Your task to perform on an android device: Go to calendar. Show me events next week Image 0: 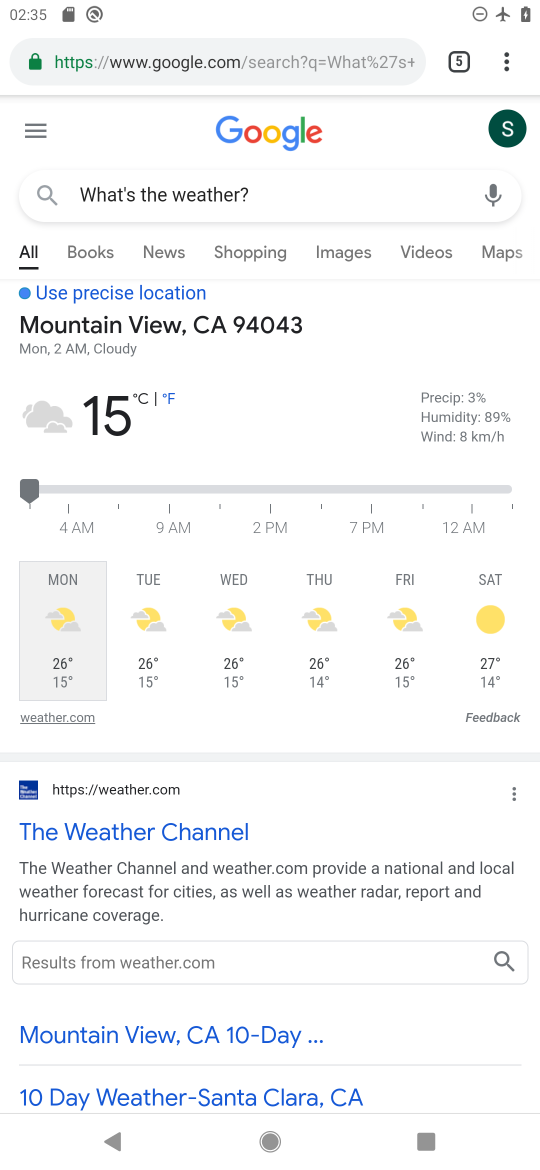
Step 0: press home button
Your task to perform on an android device: Go to calendar. Show me events next week Image 1: 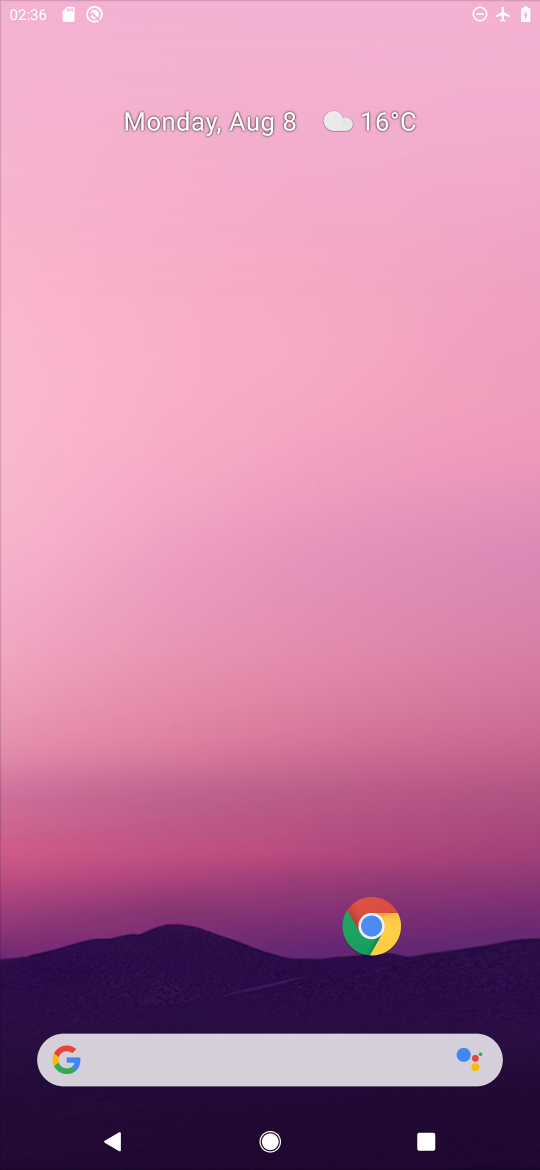
Step 1: drag from (277, 1096) to (365, 386)
Your task to perform on an android device: Go to calendar. Show me events next week Image 2: 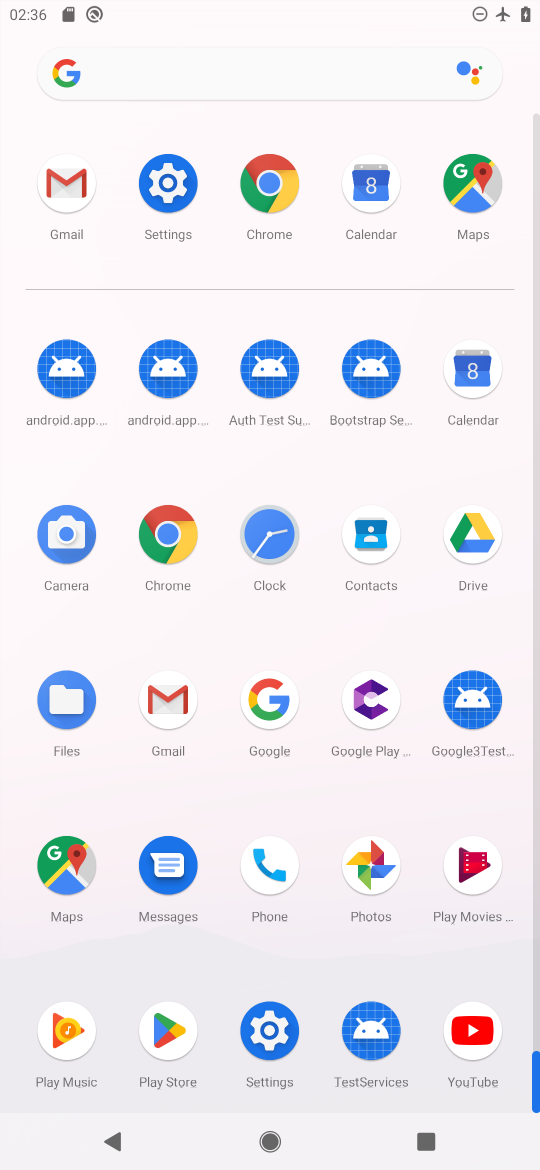
Step 2: click (378, 175)
Your task to perform on an android device: Go to calendar. Show me events next week Image 3: 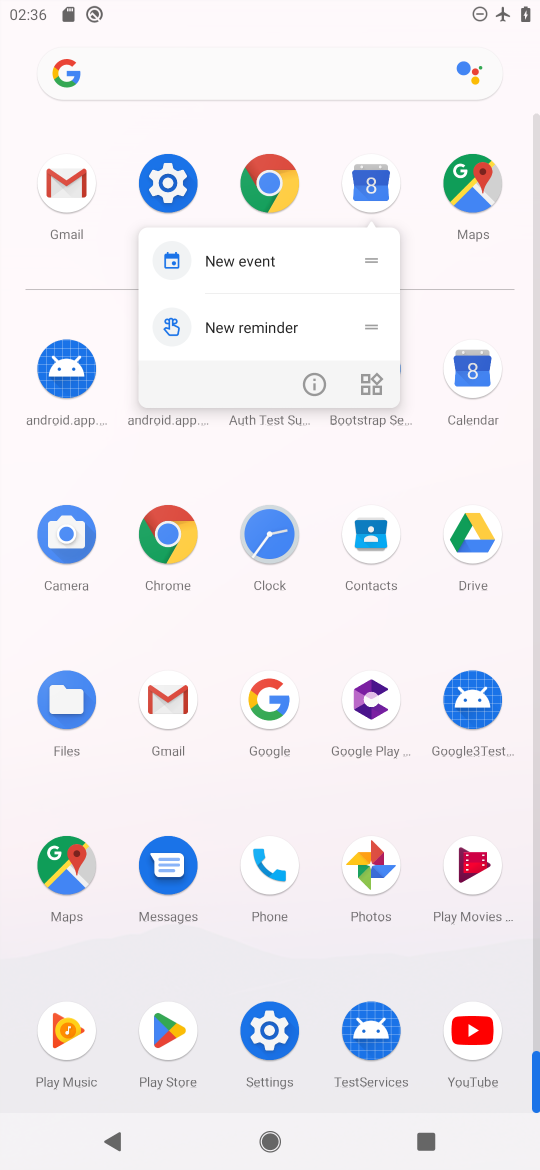
Step 3: click (376, 178)
Your task to perform on an android device: Go to calendar. Show me events next week Image 4: 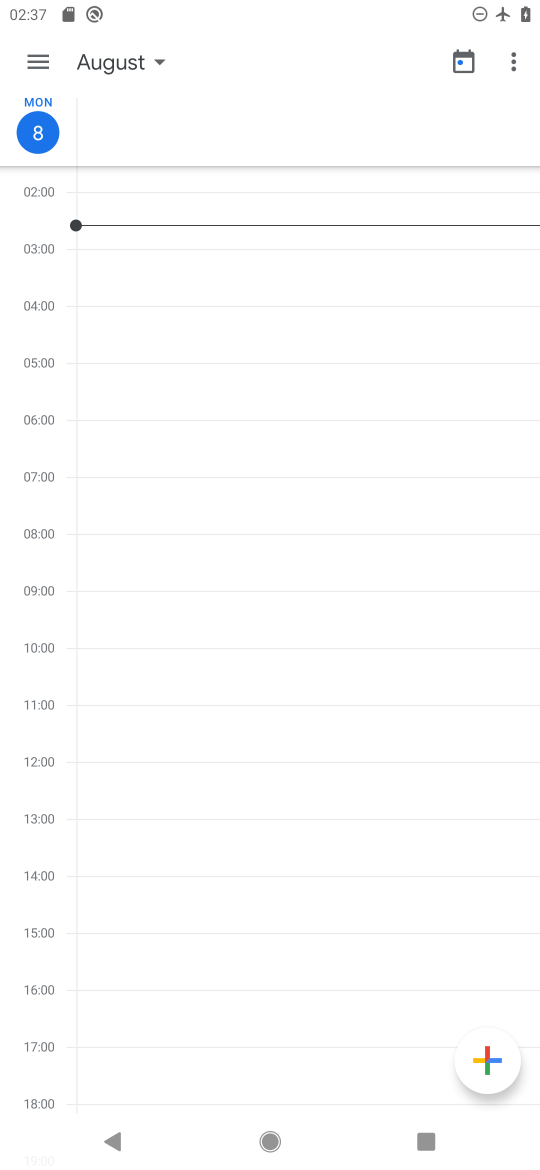
Step 4: click (56, 66)
Your task to perform on an android device: Go to calendar. Show me events next week Image 5: 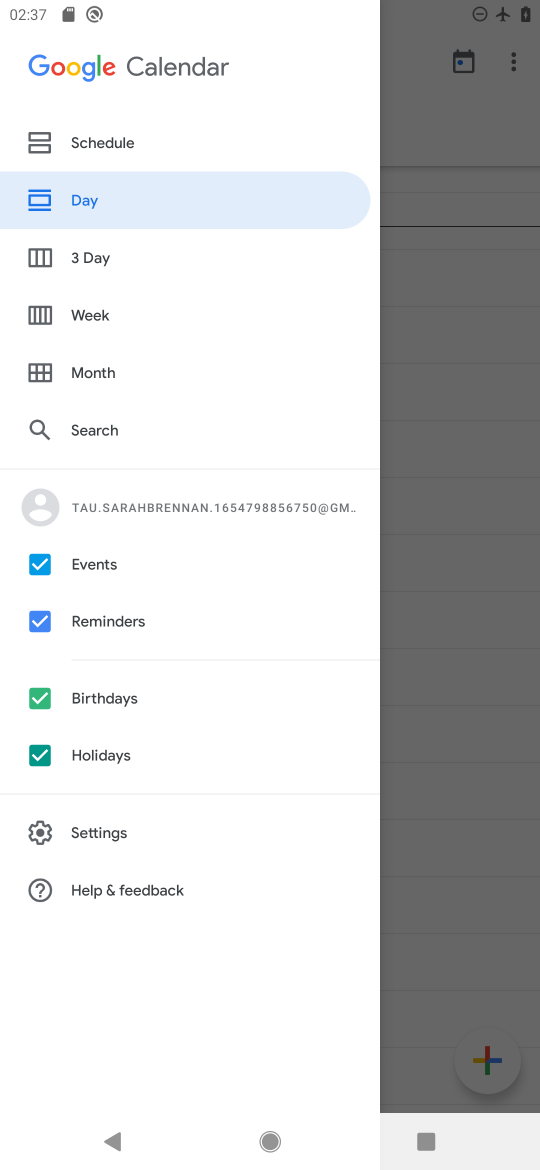
Step 5: click (145, 364)
Your task to perform on an android device: Go to calendar. Show me events next week Image 6: 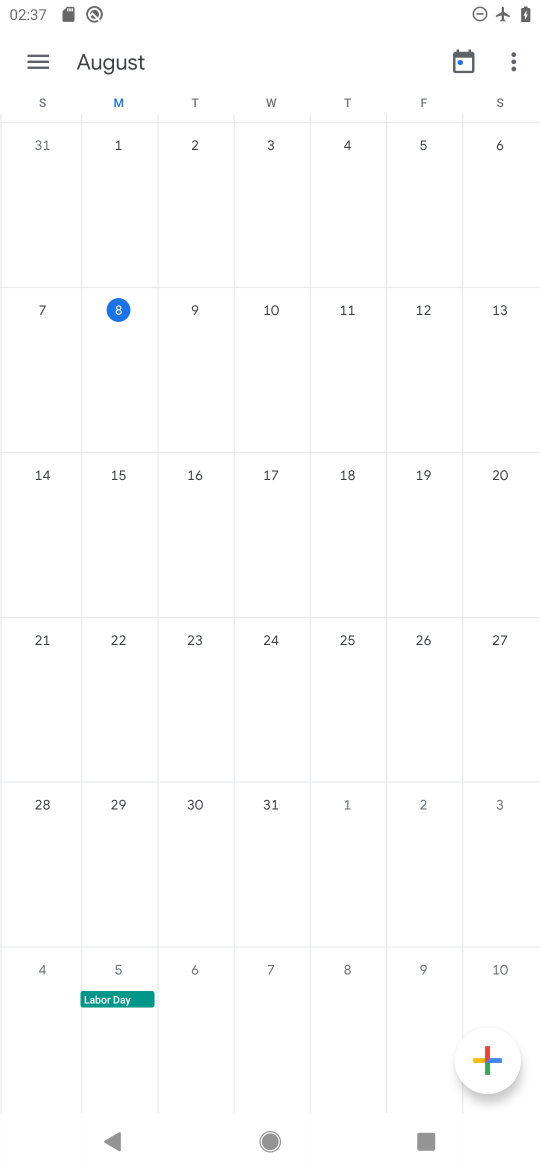
Step 6: click (33, 57)
Your task to perform on an android device: Go to calendar. Show me events next week Image 7: 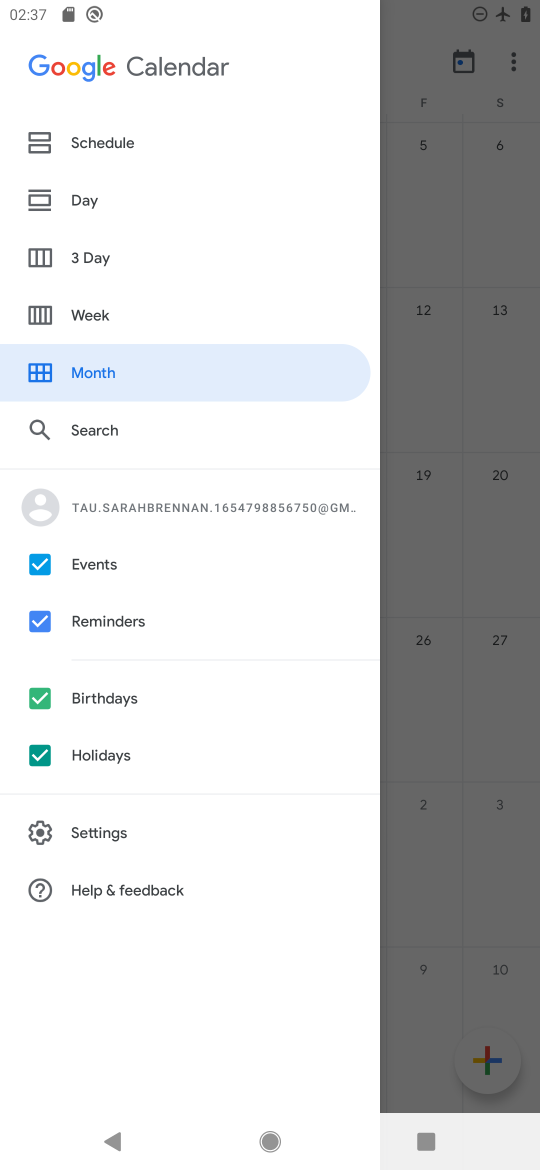
Step 7: click (125, 315)
Your task to perform on an android device: Go to calendar. Show me events next week Image 8: 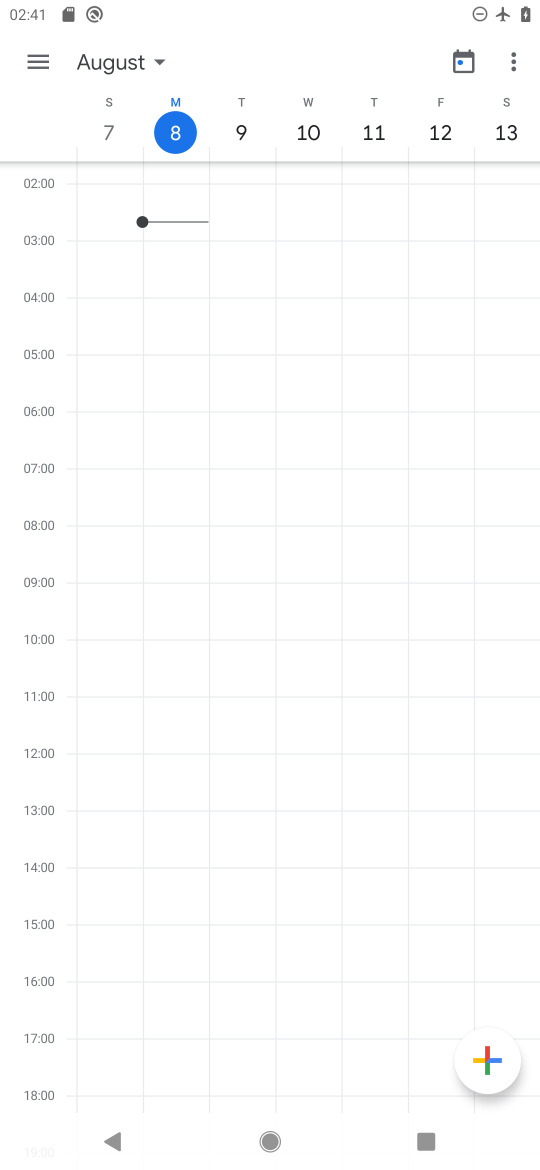
Step 8: task complete